Your task to perform on an android device: read, delete, or share a saved page in the chrome app Image 0: 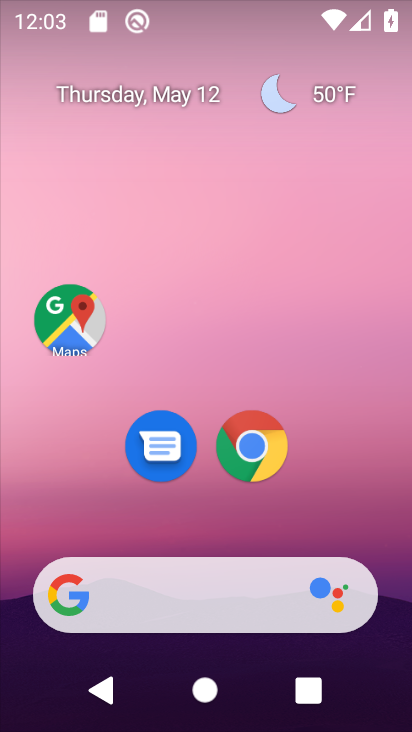
Step 0: drag from (226, 437) to (216, 520)
Your task to perform on an android device: read, delete, or share a saved page in the chrome app Image 1: 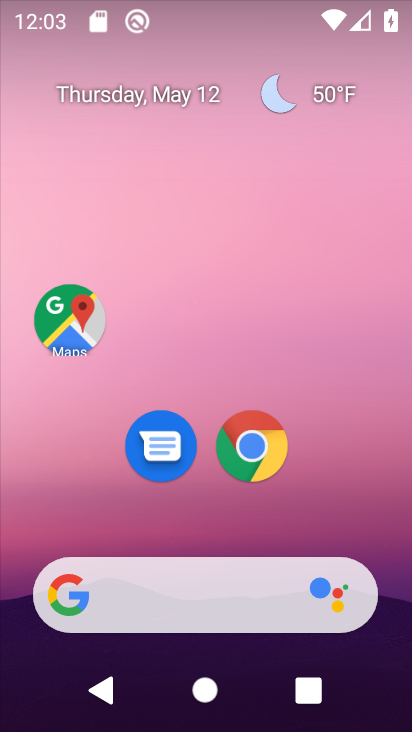
Step 1: click (256, 451)
Your task to perform on an android device: read, delete, or share a saved page in the chrome app Image 2: 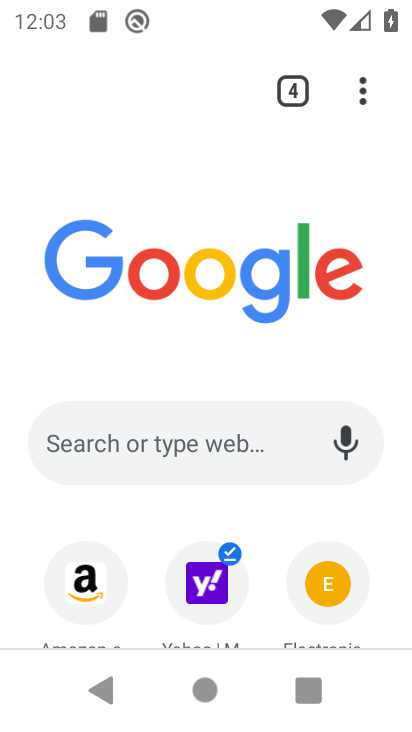
Step 2: click (358, 94)
Your task to perform on an android device: read, delete, or share a saved page in the chrome app Image 3: 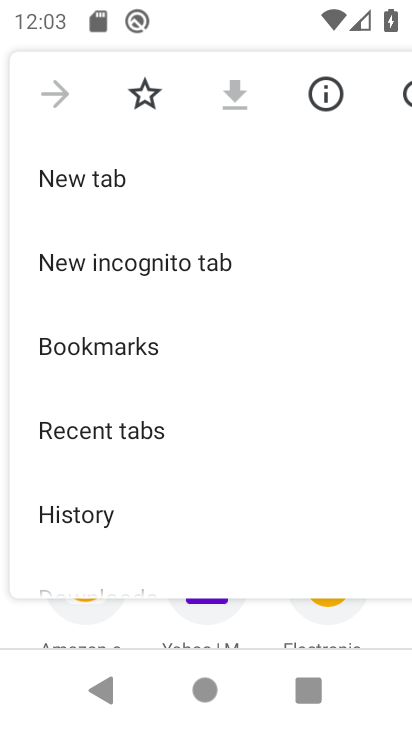
Step 3: drag from (199, 504) to (200, 287)
Your task to perform on an android device: read, delete, or share a saved page in the chrome app Image 4: 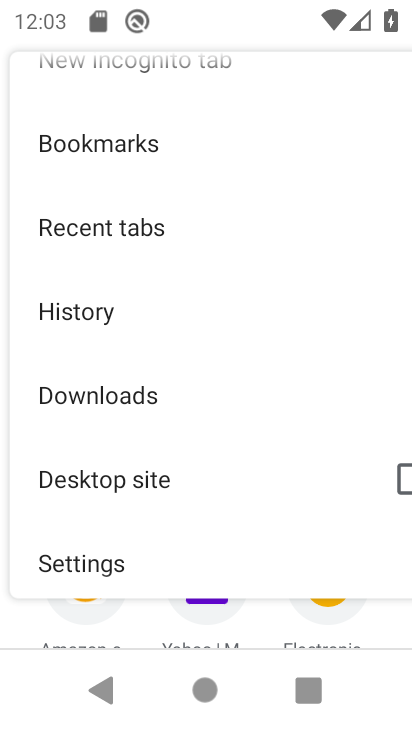
Step 4: click (108, 392)
Your task to perform on an android device: read, delete, or share a saved page in the chrome app Image 5: 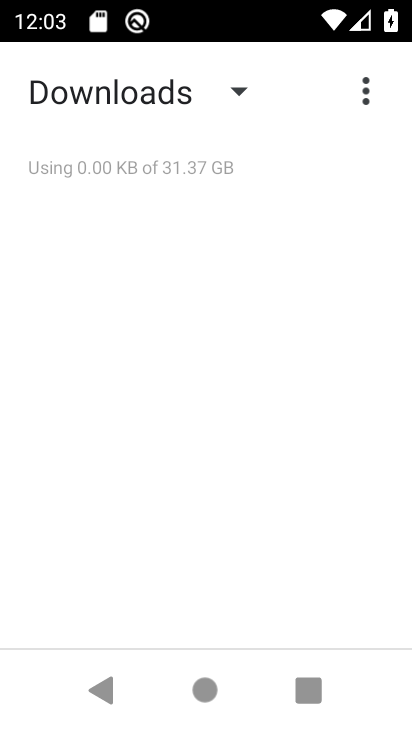
Step 5: click (201, 83)
Your task to perform on an android device: read, delete, or share a saved page in the chrome app Image 6: 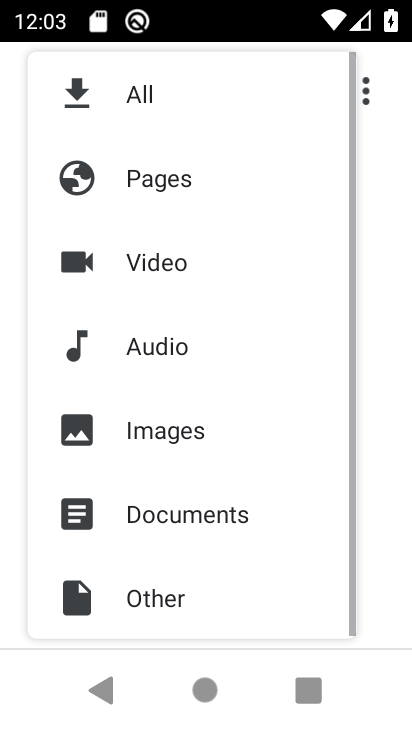
Step 6: click (168, 173)
Your task to perform on an android device: read, delete, or share a saved page in the chrome app Image 7: 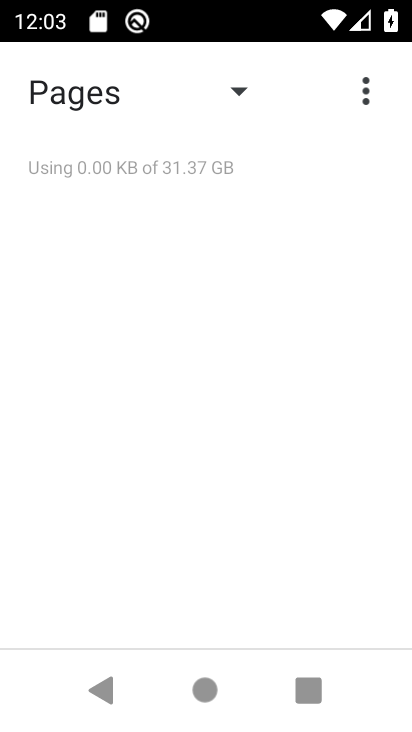
Step 7: task complete